Your task to perform on an android device: Check the weather Image 0: 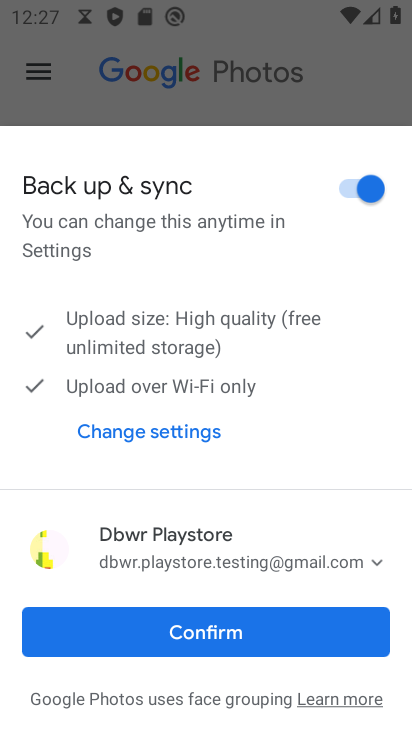
Step 0: press home button
Your task to perform on an android device: Check the weather Image 1: 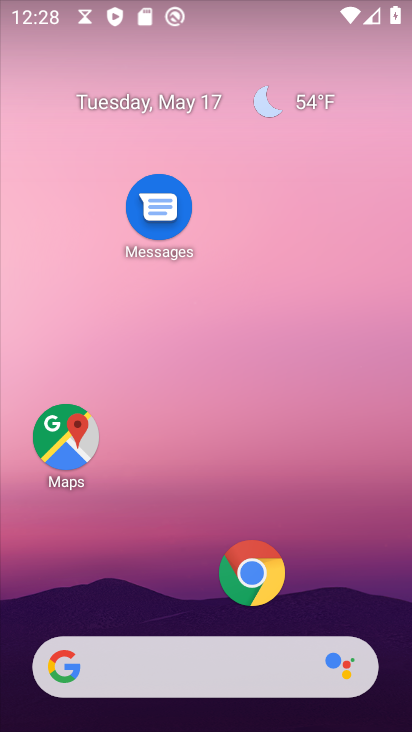
Step 1: click (315, 103)
Your task to perform on an android device: Check the weather Image 2: 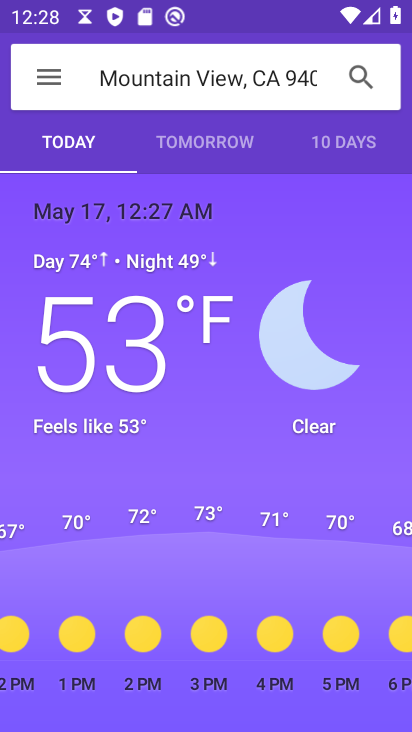
Step 2: task complete